Your task to perform on an android device: change the clock display to analog Image 0: 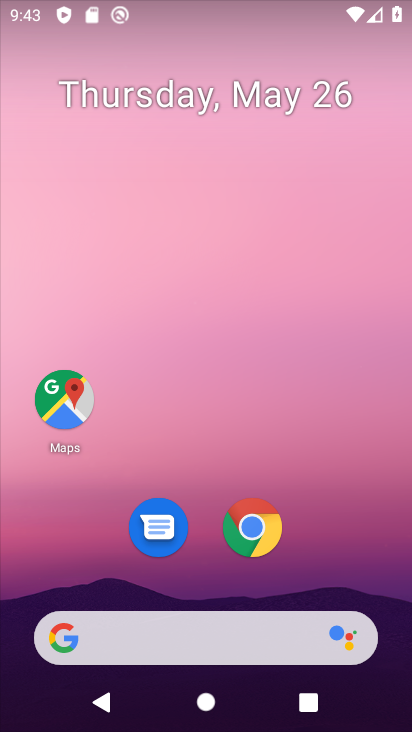
Step 0: drag from (159, 726) to (62, 110)
Your task to perform on an android device: change the clock display to analog Image 1: 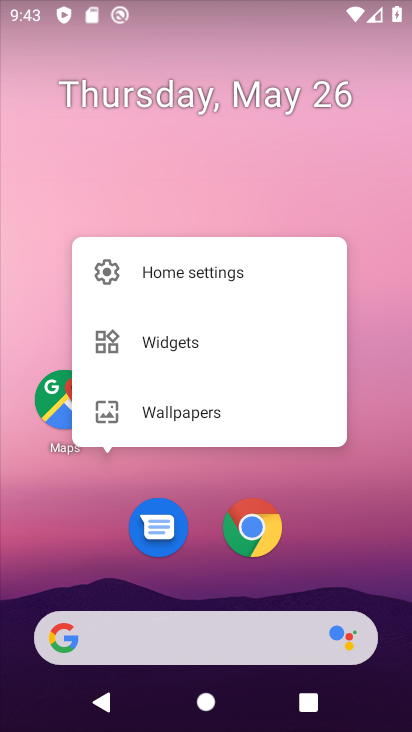
Step 1: press home button
Your task to perform on an android device: change the clock display to analog Image 2: 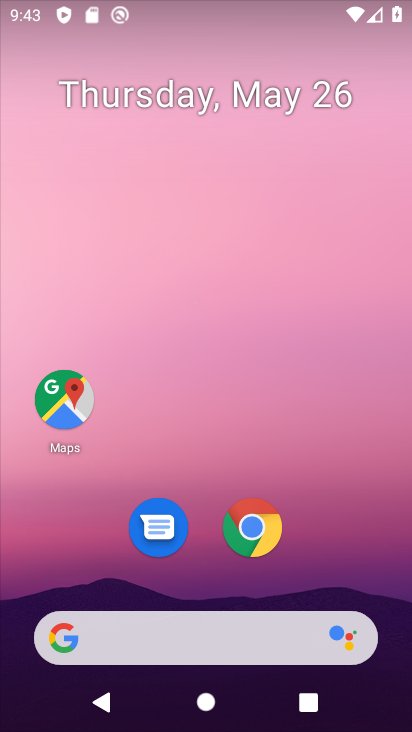
Step 2: drag from (172, 719) to (151, 71)
Your task to perform on an android device: change the clock display to analog Image 3: 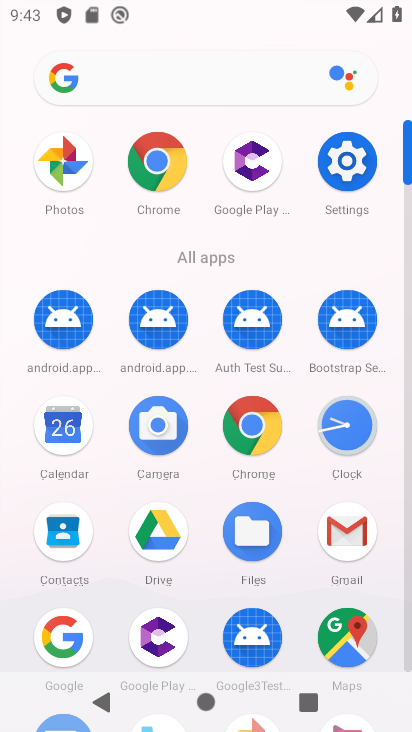
Step 3: click (350, 433)
Your task to perform on an android device: change the clock display to analog Image 4: 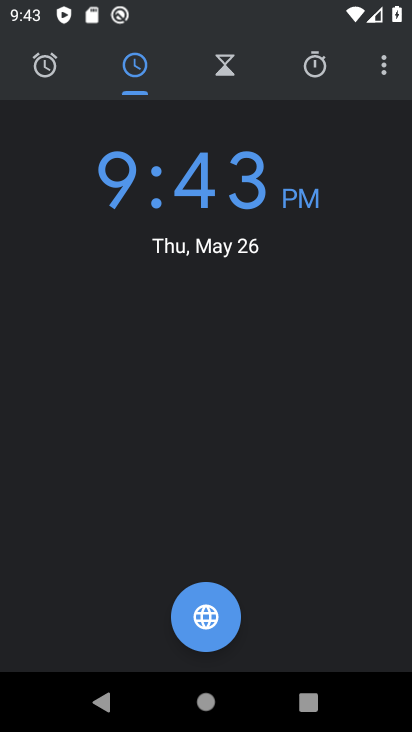
Step 4: click (381, 72)
Your task to perform on an android device: change the clock display to analog Image 5: 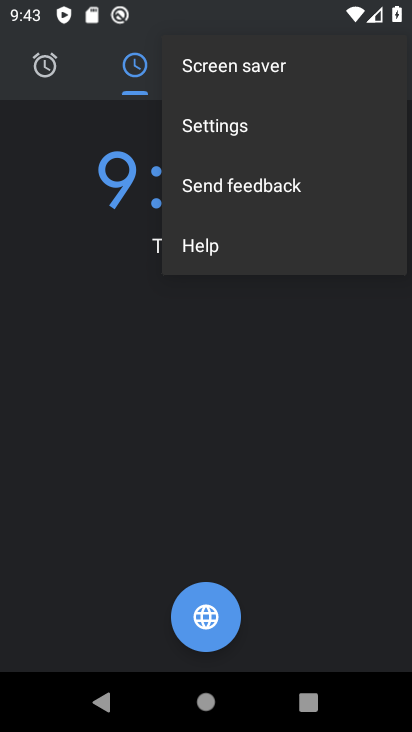
Step 5: click (247, 131)
Your task to perform on an android device: change the clock display to analog Image 6: 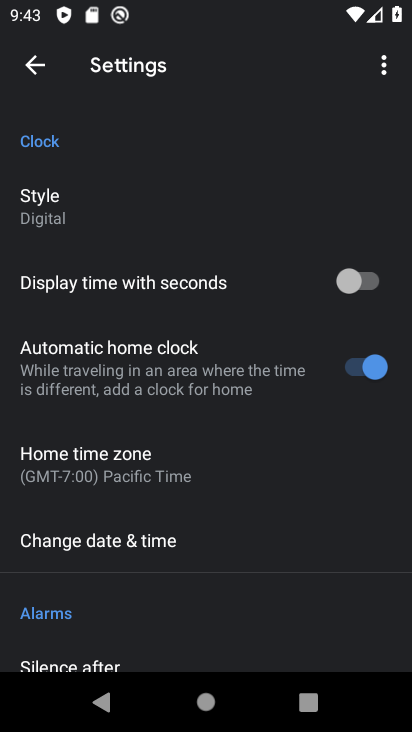
Step 6: click (96, 212)
Your task to perform on an android device: change the clock display to analog Image 7: 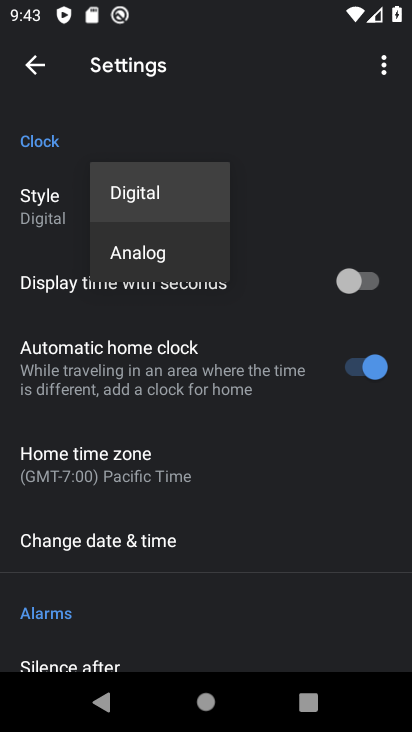
Step 7: click (161, 259)
Your task to perform on an android device: change the clock display to analog Image 8: 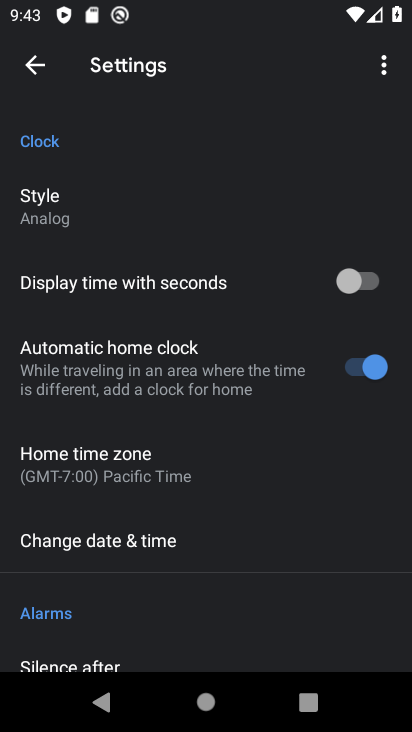
Step 8: task complete